Your task to perform on an android device: see tabs open on other devices in the chrome app Image 0: 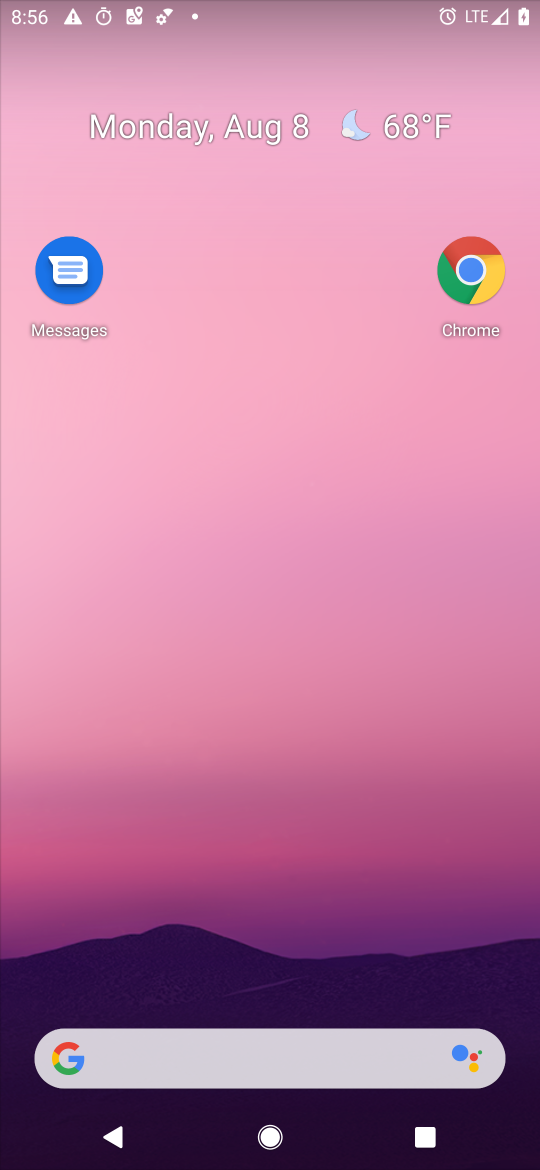
Step 0: drag from (280, 969) to (355, 183)
Your task to perform on an android device: see tabs open on other devices in the chrome app Image 1: 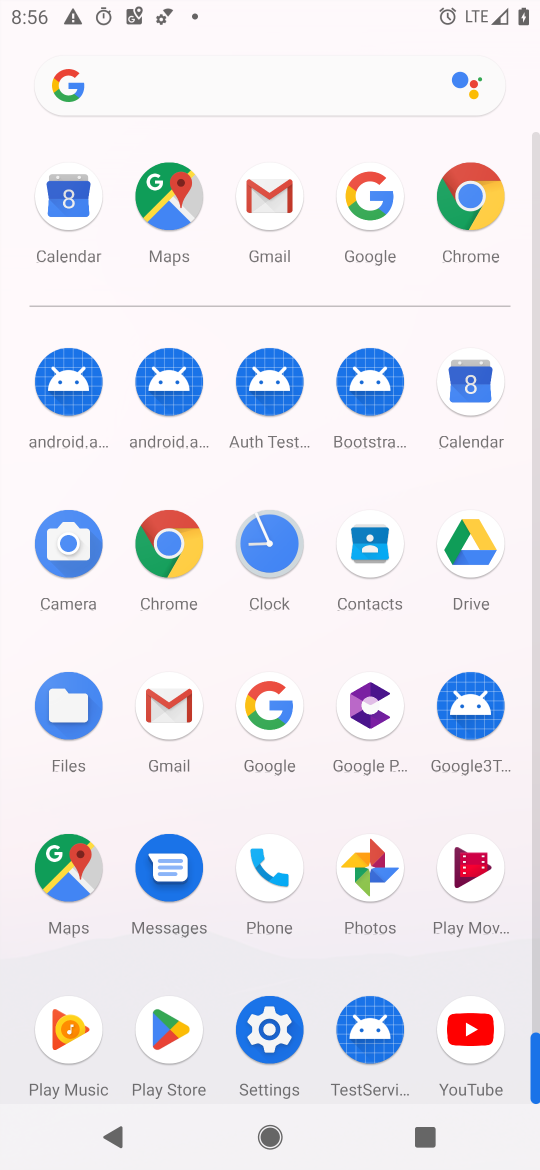
Step 1: click (449, 210)
Your task to perform on an android device: see tabs open on other devices in the chrome app Image 2: 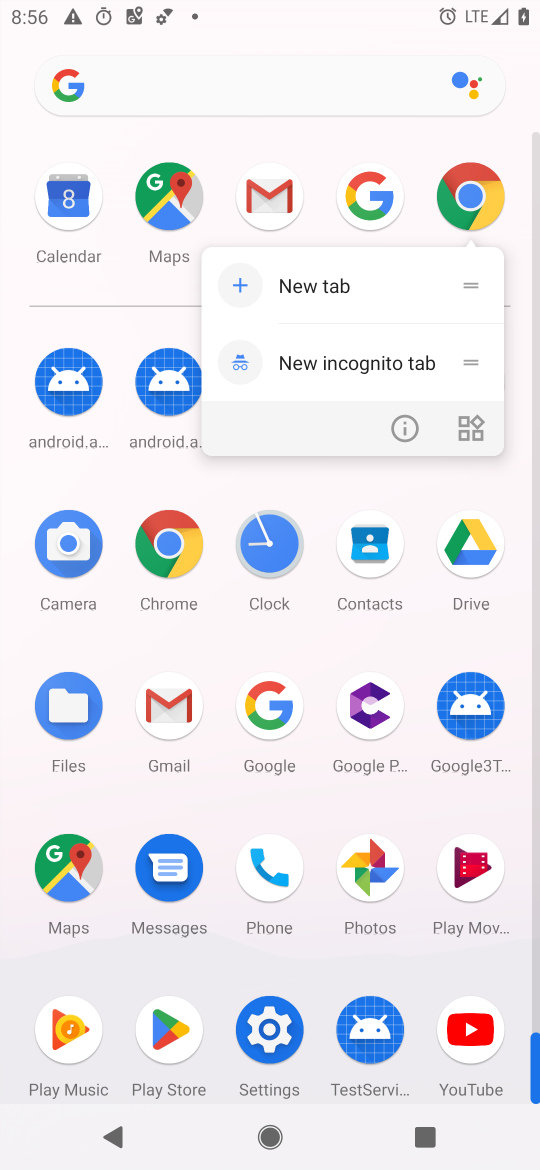
Step 2: click (402, 417)
Your task to perform on an android device: see tabs open on other devices in the chrome app Image 3: 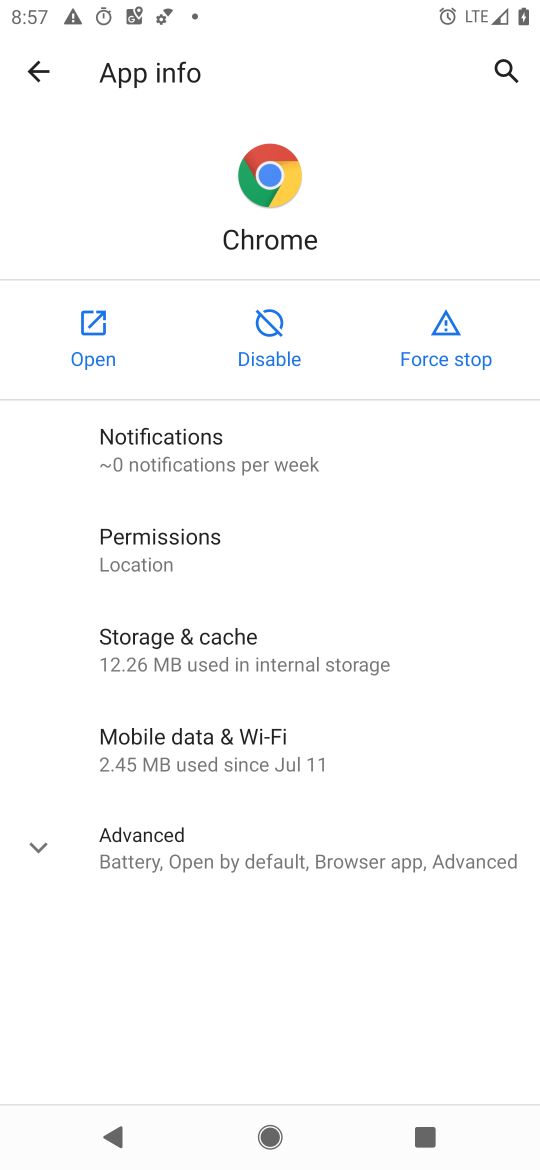
Step 3: click (80, 354)
Your task to perform on an android device: see tabs open on other devices in the chrome app Image 4: 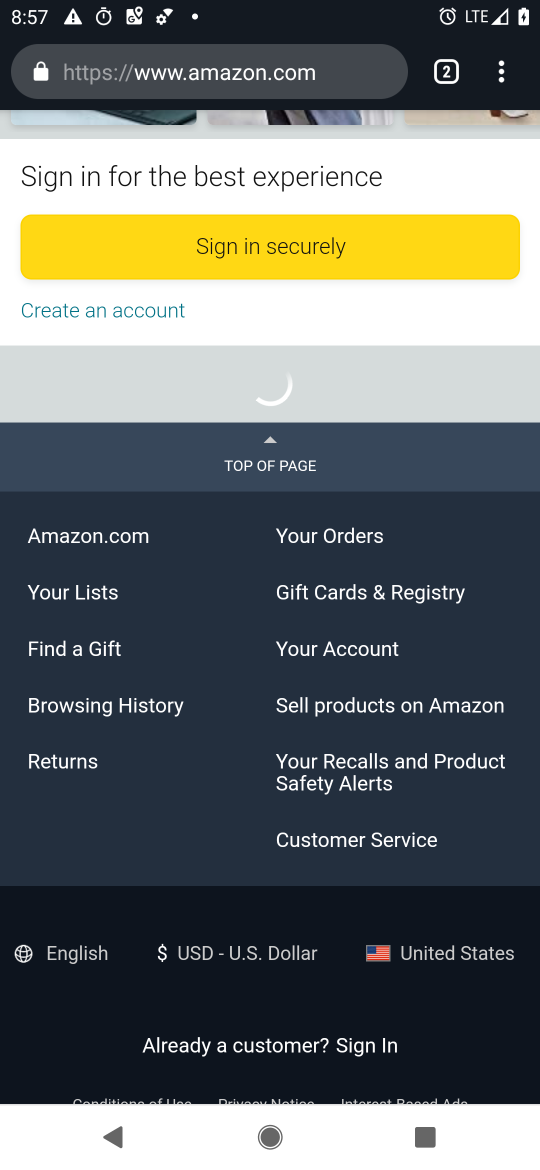
Step 4: task complete